Your task to perform on an android device: Search for sushi restaurants on Maps Image 0: 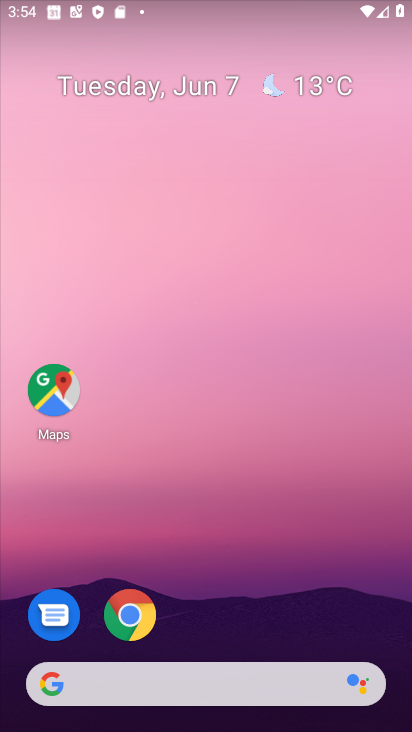
Step 0: click (59, 386)
Your task to perform on an android device: Search for sushi restaurants on Maps Image 1: 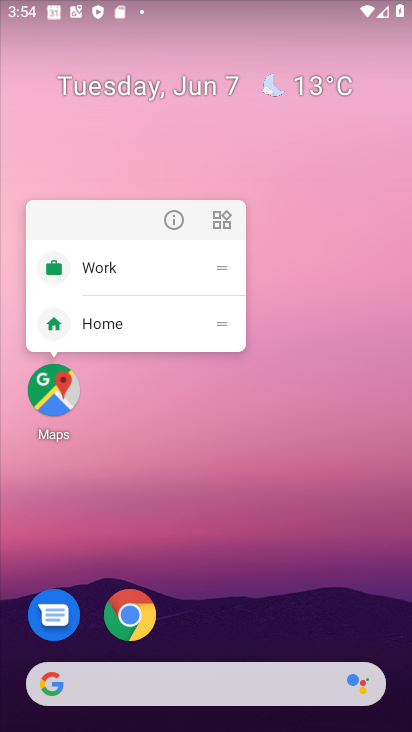
Step 1: click (58, 387)
Your task to perform on an android device: Search for sushi restaurants on Maps Image 2: 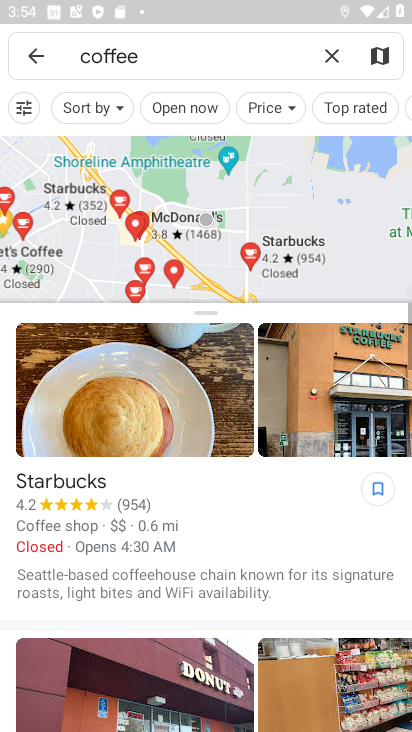
Step 2: click (329, 51)
Your task to perform on an android device: Search for sushi restaurants on Maps Image 3: 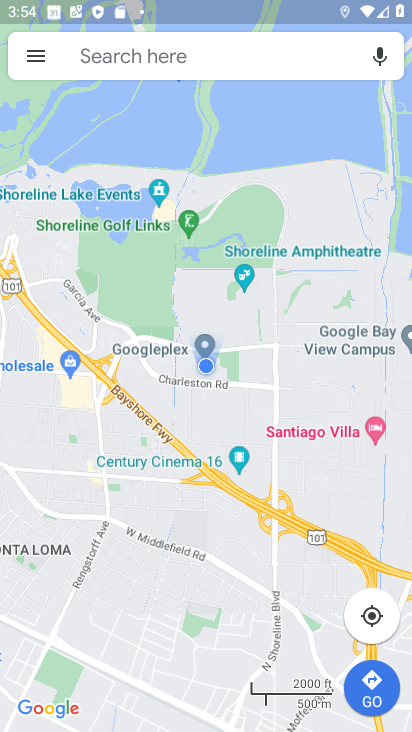
Step 3: click (149, 51)
Your task to perform on an android device: Search for sushi restaurants on Maps Image 4: 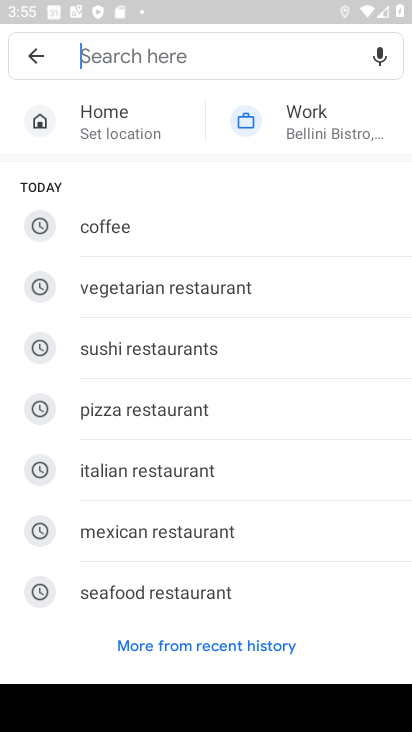
Step 4: type "Sushi restaurants"
Your task to perform on an android device: Search for sushi restaurants on Maps Image 5: 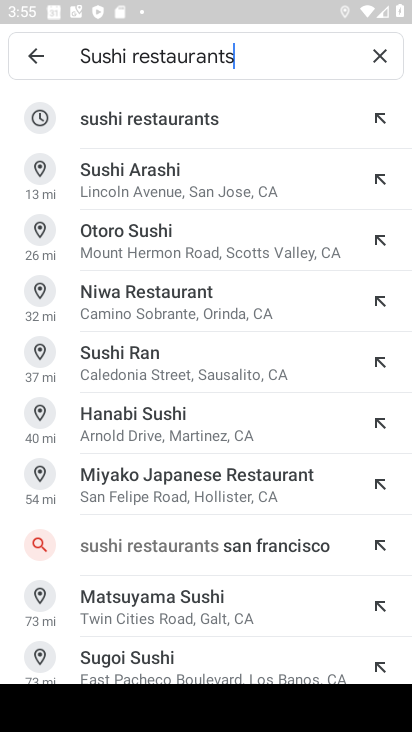
Step 5: click (219, 126)
Your task to perform on an android device: Search for sushi restaurants on Maps Image 6: 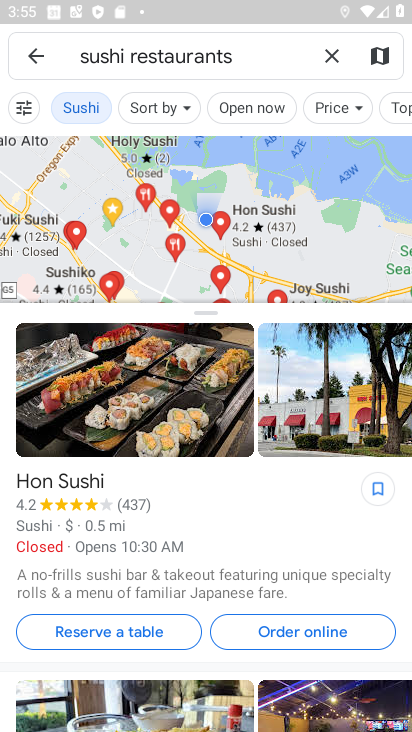
Step 6: task complete